Your task to perform on an android device: turn off sleep mode Image 0: 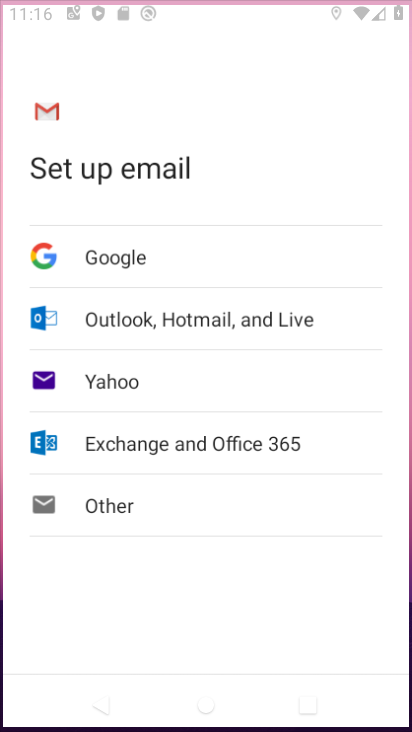
Step 0: drag from (283, 572) to (201, 231)
Your task to perform on an android device: turn off sleep mode Image 1: 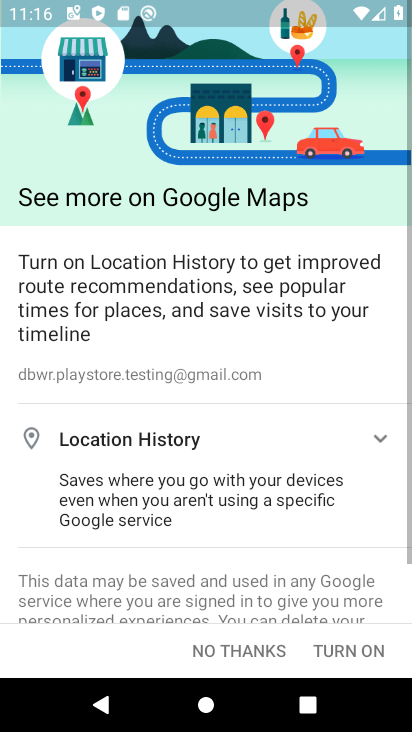
Step 1: press home button
Your task to perform on an android device: turn off sleep mode Image 2: 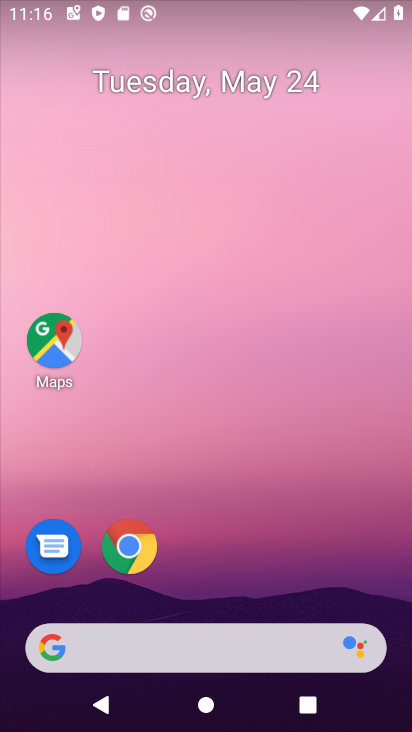
Step 2: drag from (271, 591) to (255, 80)
Your task to perform on an android device: turn off sleep mode Image 3: 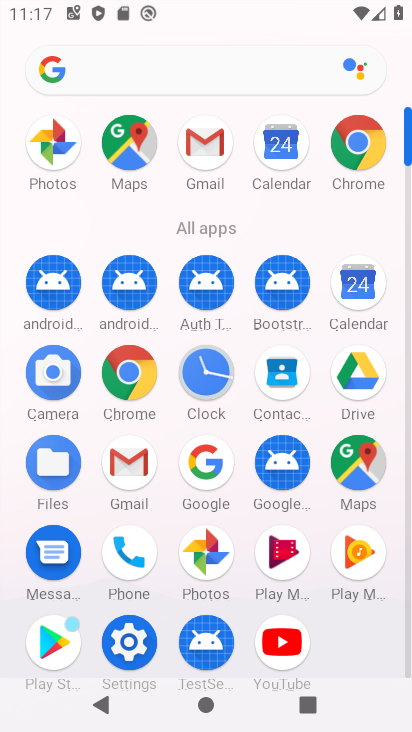
Step 3: click (135, 648)
Your task to perform on an android device: turn off sleep mode Image 4: 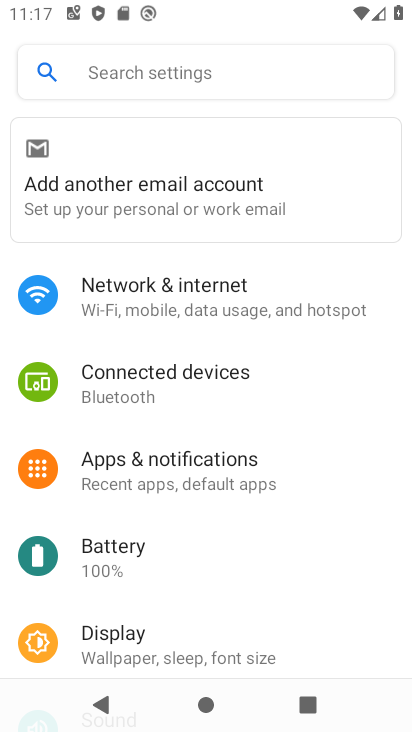
Step 4: click (241, 644)
Your task to perform on an android device: turn off sleep mode Image 5: 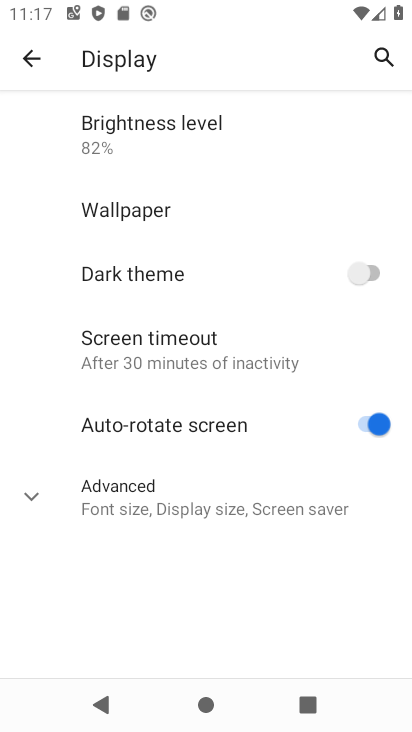
Step 5: click (235, 502)
Your task to perform on an android device: turn off sleep mode Image 6: 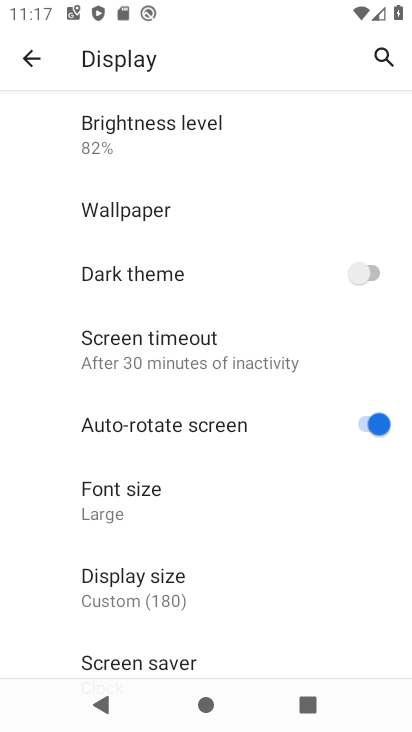
Step 6: task complete